Your task to perform on an android device: Open CNN.com Image 0: 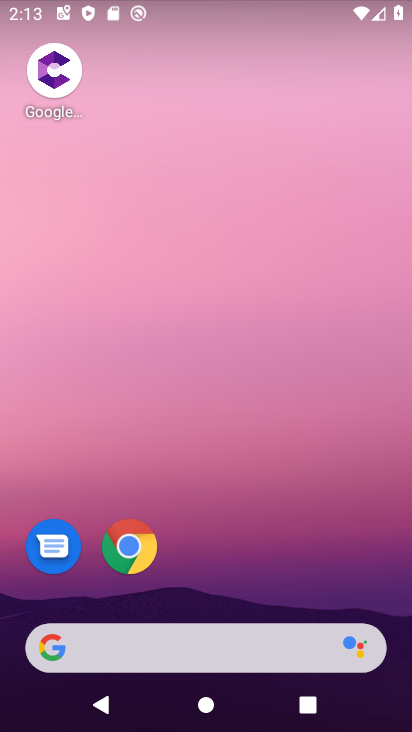
Step 0: click (124, 542)
Your task to perform on an android device: Open CNN.com Image 1: 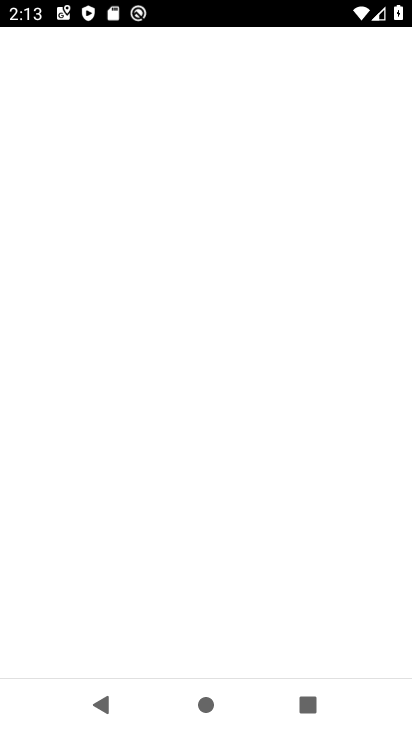
Step 1: click (123, 545)
Your task to perform on an android device: Open CNN.com Image 2: 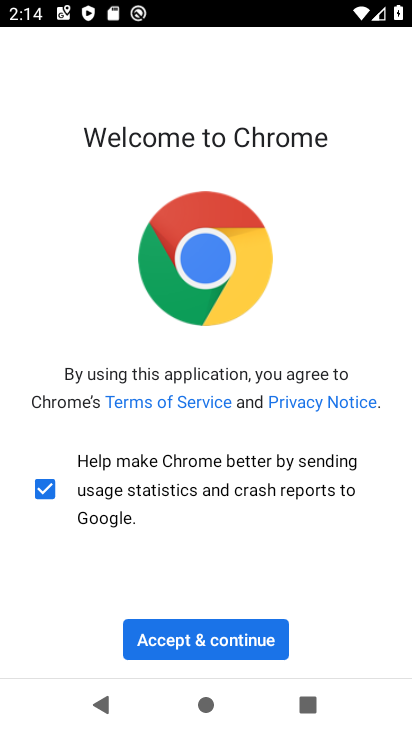
Step 2: click (210, 633)
Your task to perform on an android device: Open CNN.com Image 3: 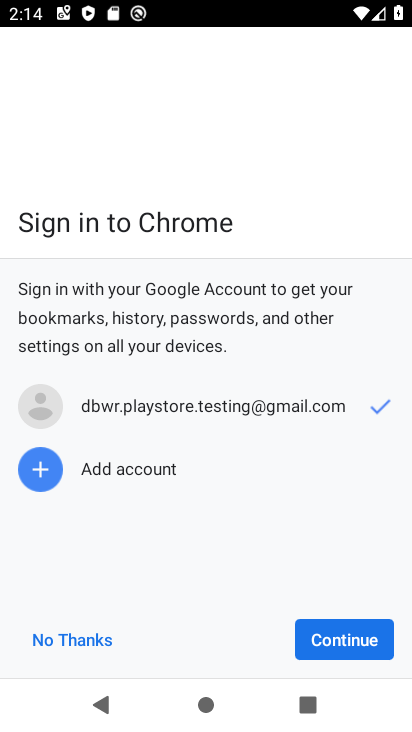
Step 3: click (348, 647)
Your task to perform on an android device: Open CNN.com Image 4: 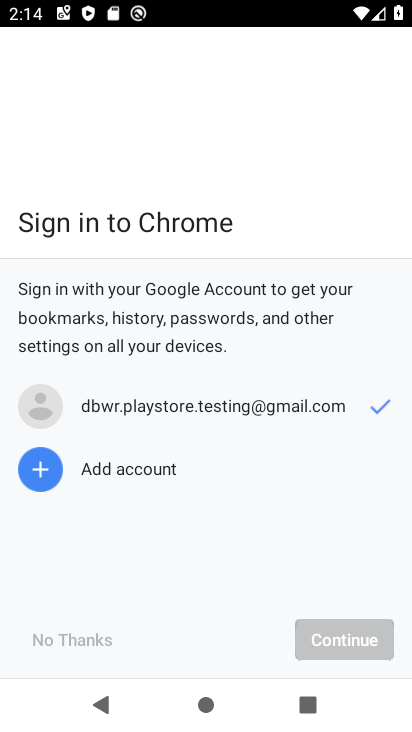
Step 4: click (348, 646)
Your task to perform on an android device: Open CNN.com Image 5: 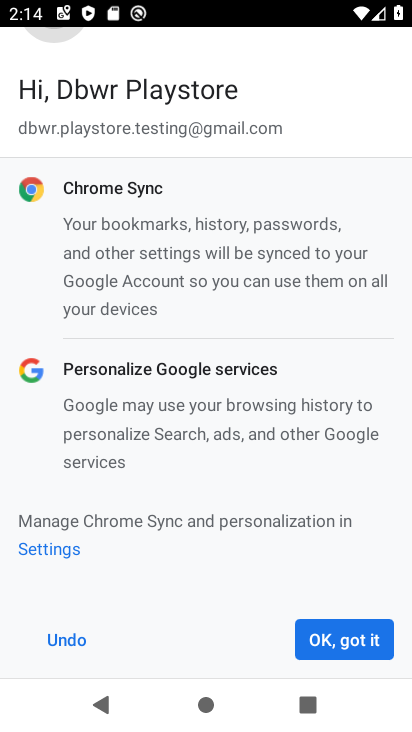
Step 5: click (348, 646)
Your task to perform on an android device: Open CNN.com Image 6: 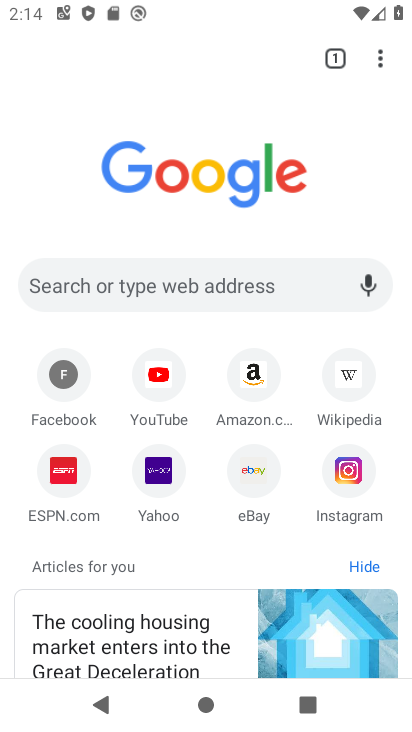
Step 6: drag from (315, 249) to (323, 330)
Your task to perform on an android device: Open CNN.com Image 7: 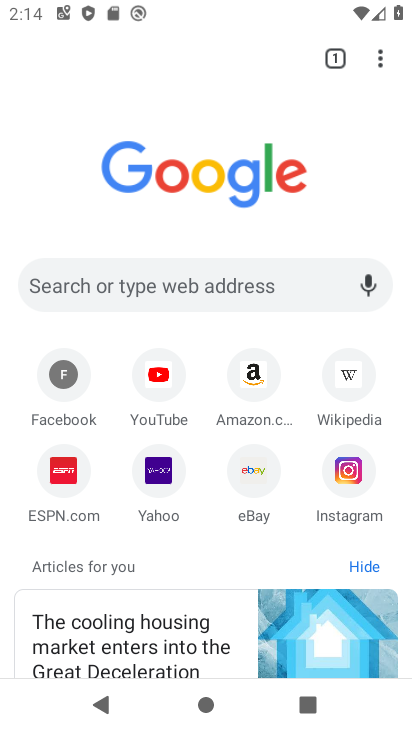
Step 7: click (175, 275)
Your task to perform on an android device: Open CNN.com Image 8: 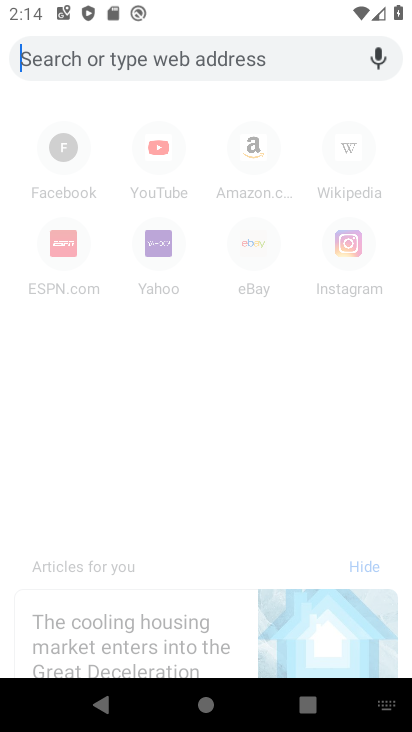
Step 8: type "cnn"
Your task to perform on an android device: Open CNN.com Image 9: 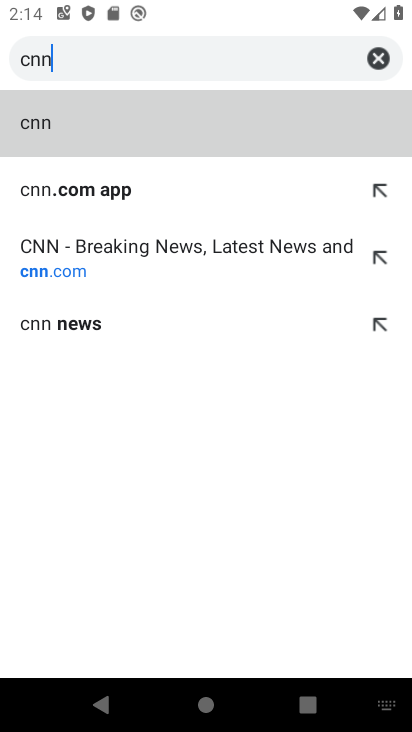
Step 9: click (101, 255)
Your task to perform on an android device: Open CNN.com Image 10: 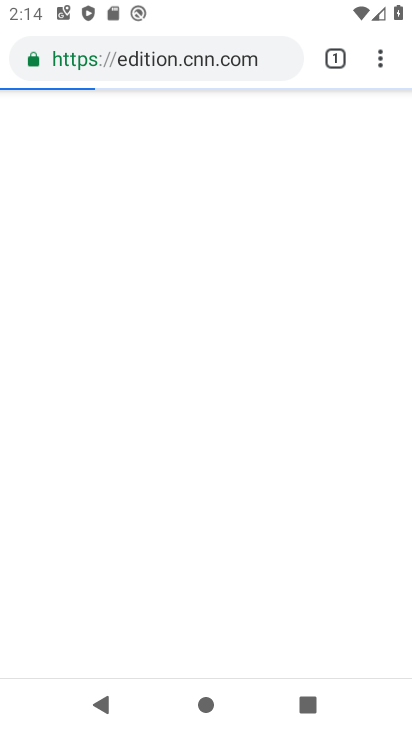
Step 10: click (100, 255)
Your task to perform on an android device: Open CNN.com Image 11: 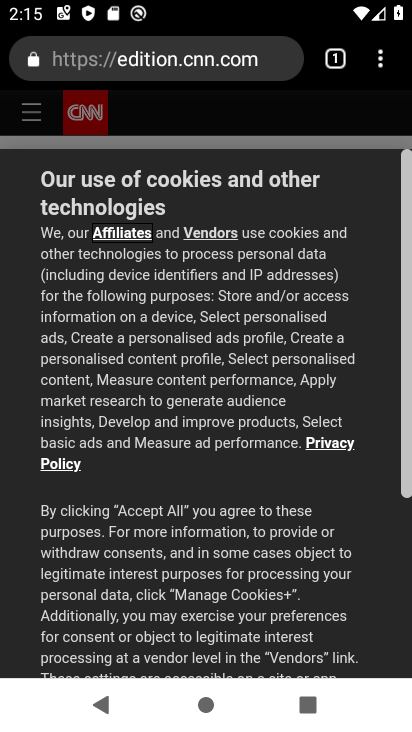
Step 11: task complete